Your task to perform on an android device: Open Amazon Image 0: 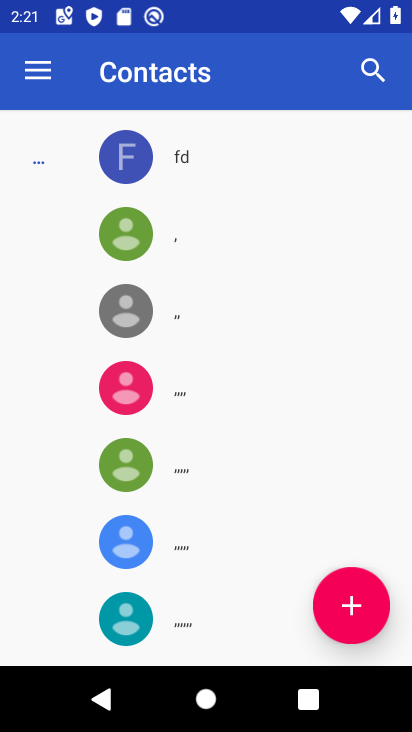
Step 0: press home button
Your task to perform on an android device: Open Amazon Image 1: 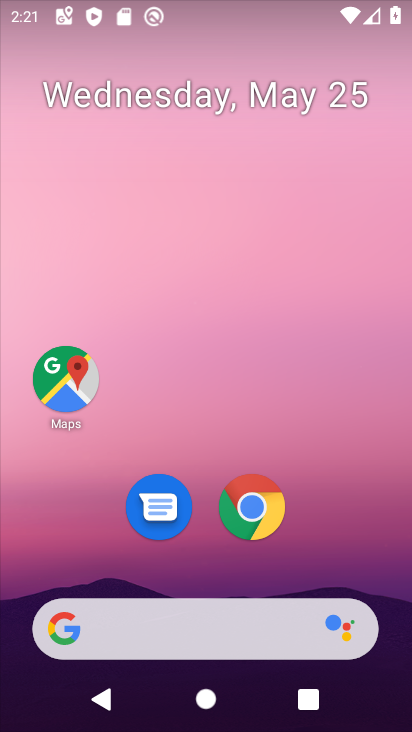
Step 1: drag from (248, 618) to (294, 165)
Your task to perform on an android device: Open Amazon Image 2: 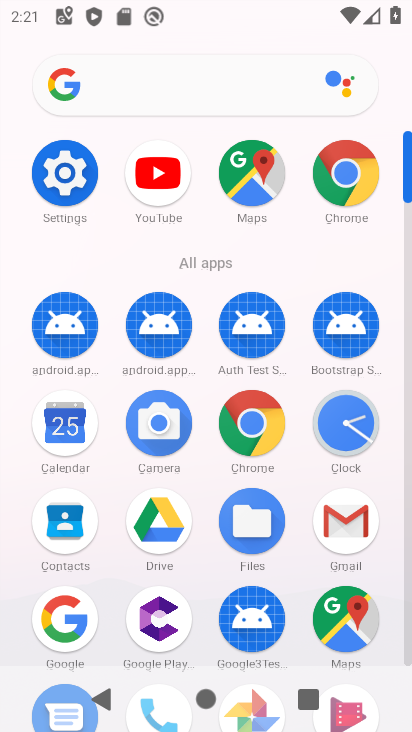
Step 2: click (361, 178)
Your task to perform on an android device: Open Amazon Image 3: 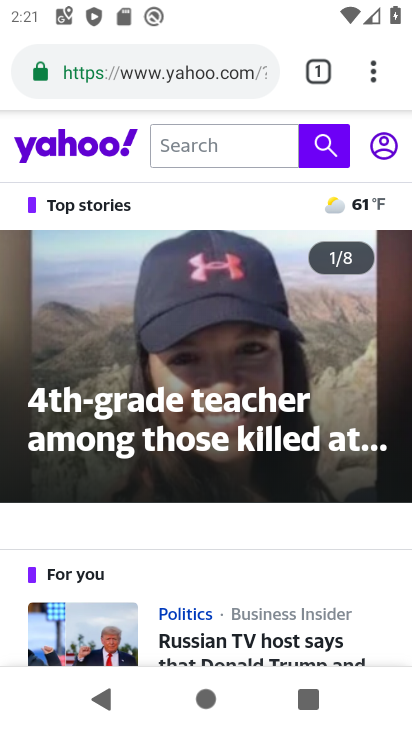
Step 3: click (241, 82)
Your task to perform on an android device: Open Amazon Image 4: 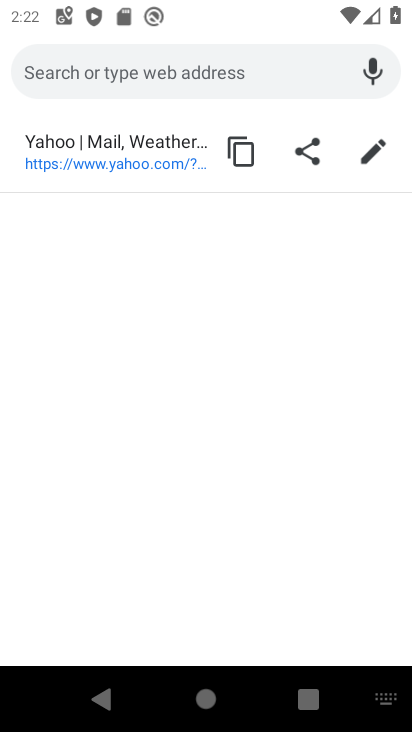
Step 4: type "amazon"
Your task to perform on an android device: Open Amazon Image 5: 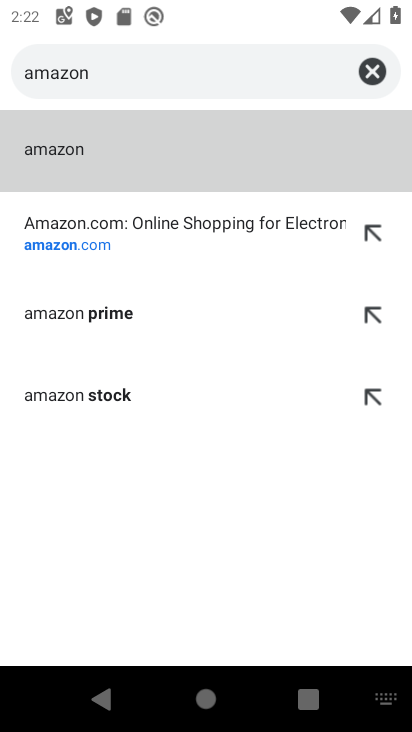
Step 5: click (301, 243)
Your task to perform on an android device: Open Amazon Image 6: 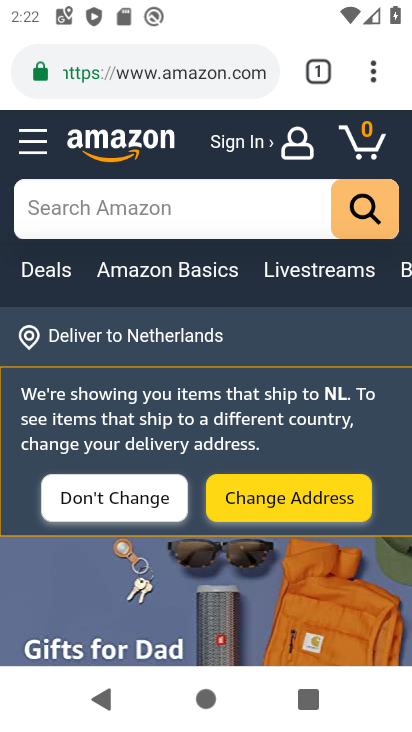
Step 6: task complete